Your task to perform on an android device: check data usage Image 0: 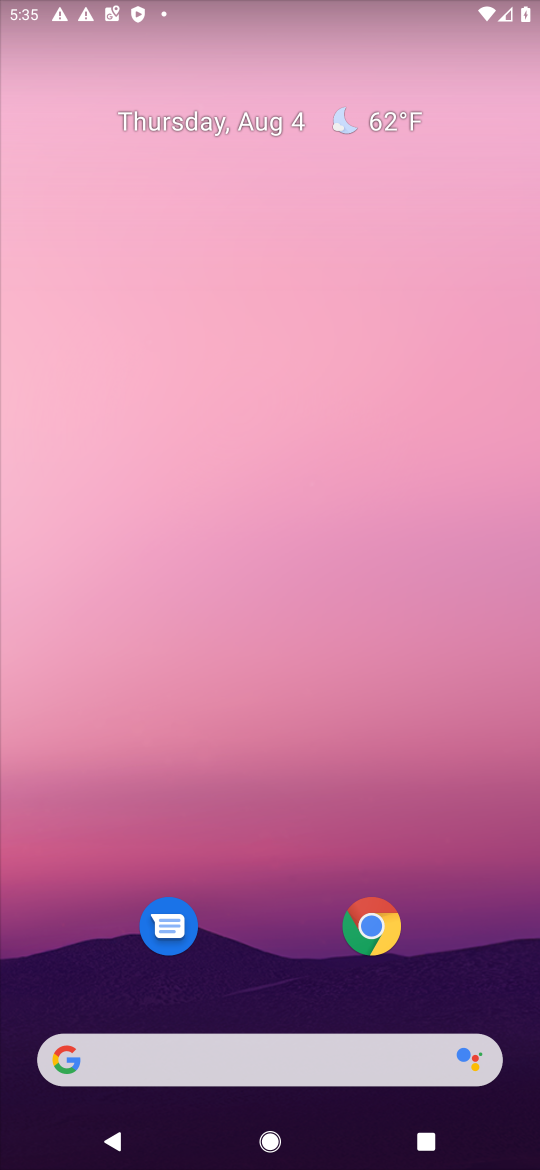
Step 0: press home button
Your task to perform on an android device: check data usage Image 1: 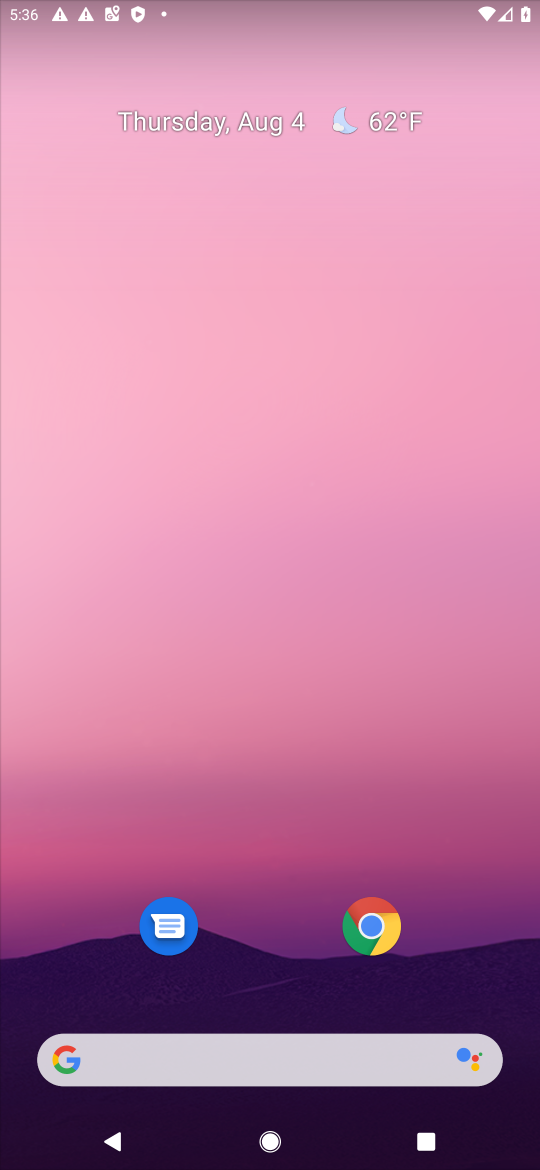
Step 1: drag from (247, 726) to (328, 2)
Your task to perform on an android device: check data usage Image 2: 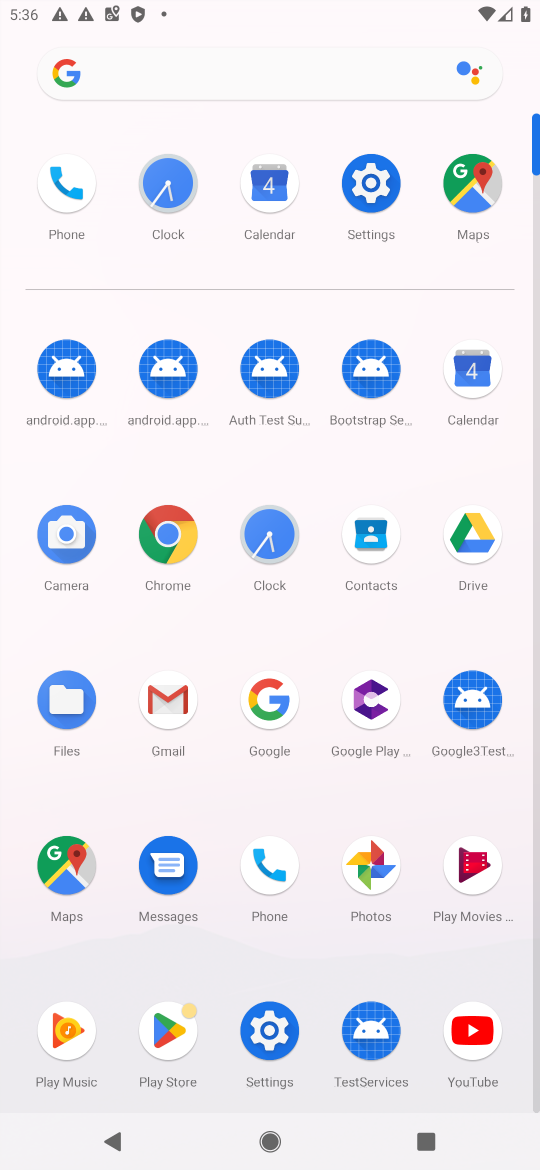
Step 2: click (383, 177)
Your task to perform on an android device: check data usage Image 3: 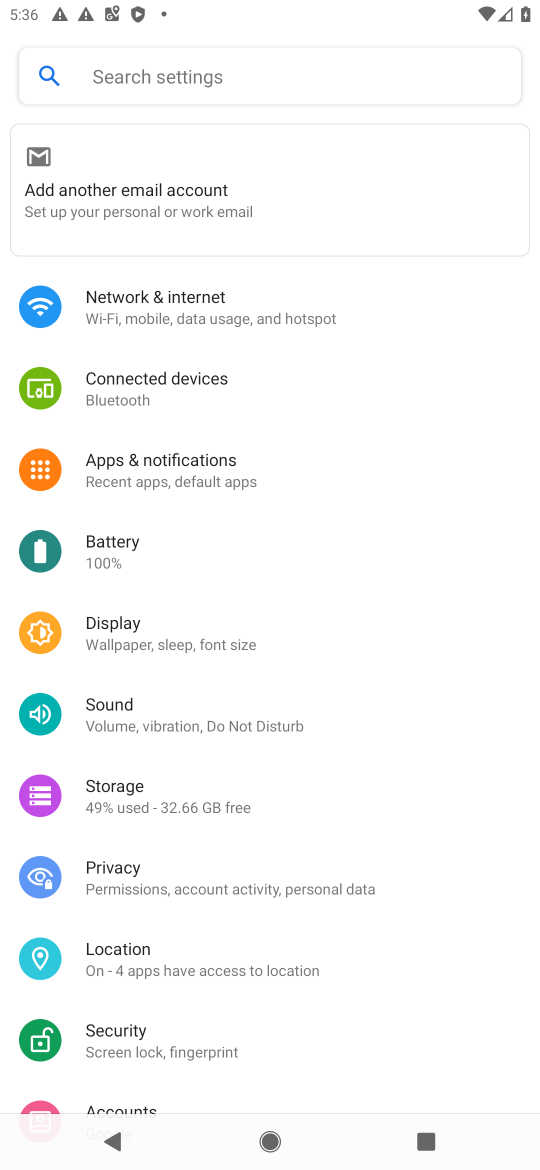
Step 3: click (190, 307)
Your task to perform on an android device: check data usage Image 4: 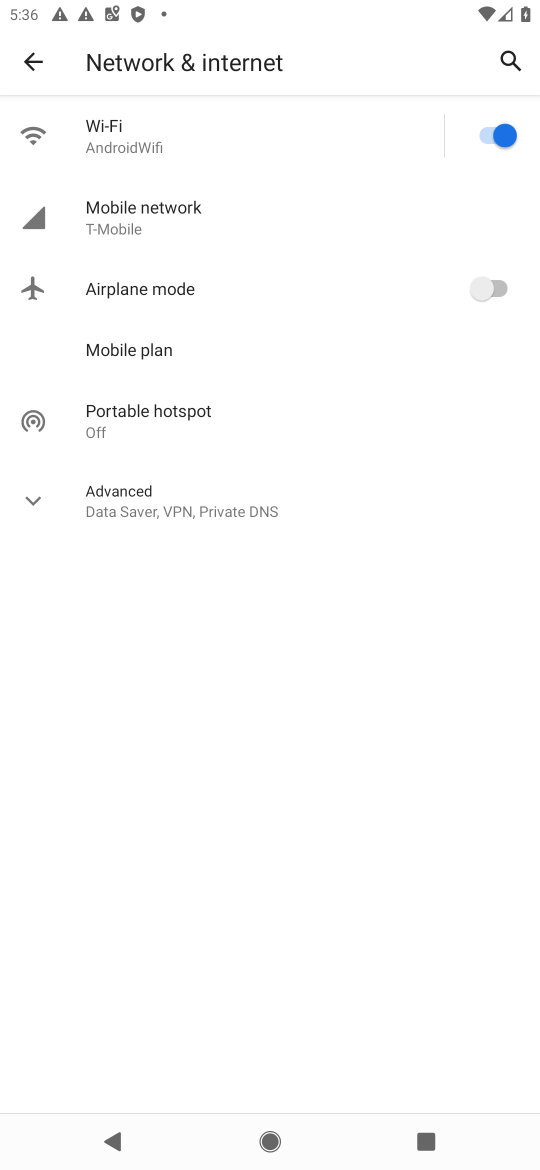
Step 4: click (126, 223)
Your task to perform on an android device: check data usage Image 5: 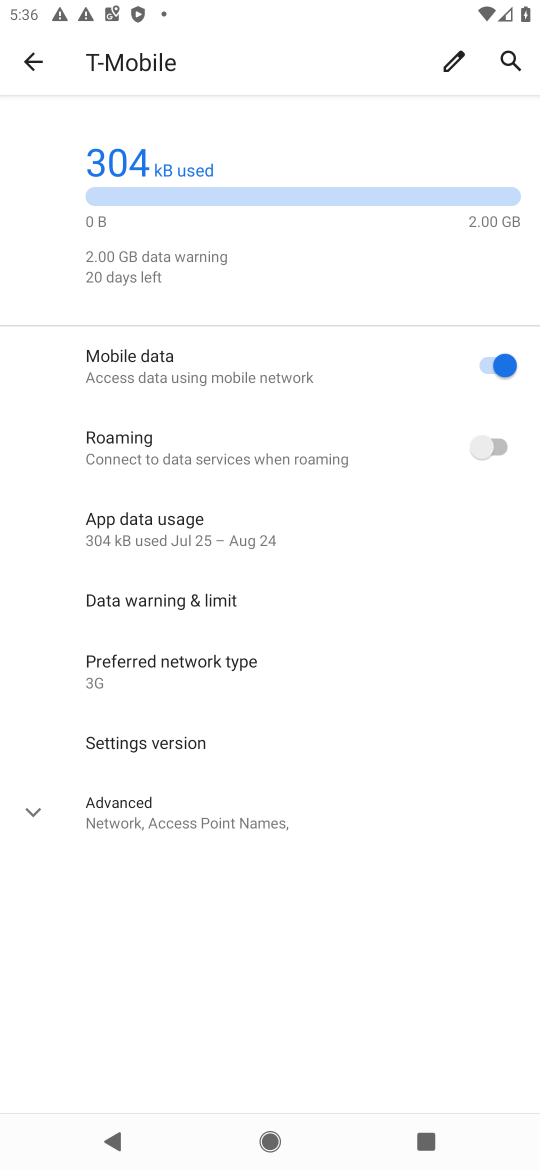
Step 5: click (158, 518)
Your task to perform on an android device: check data usage Image 6: 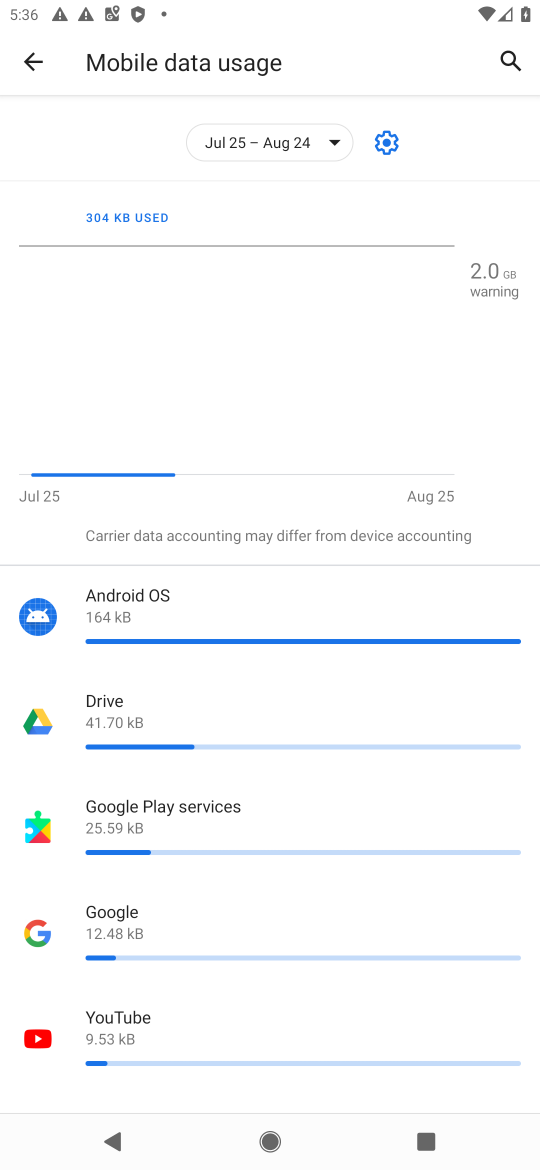
Step 6: task complete